Your task to perform on an android device: toggle translation in the chrome app Image 0: 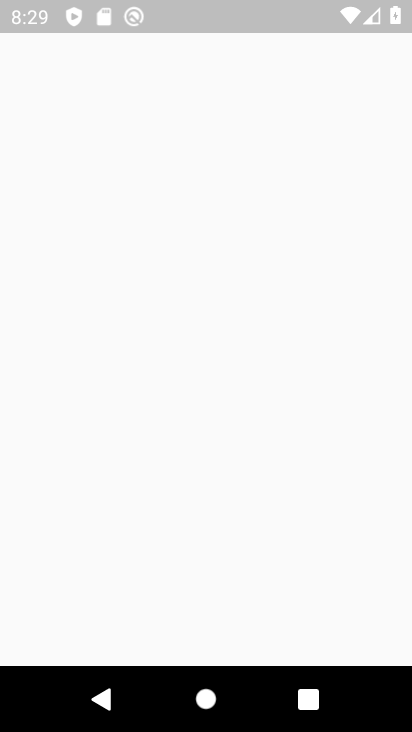
Step 0: press back button
Your task to perform on an android device: toggle translation in the chrome app Image 1: 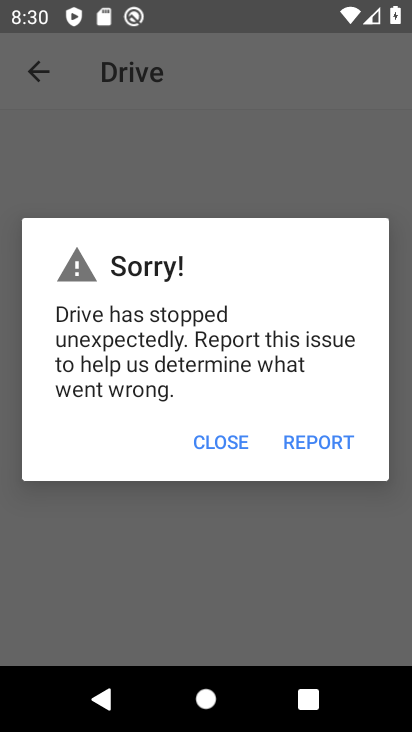
Step 1: press back button
Your task to perform on an android device: toggle translation in the chrome app Image 2: 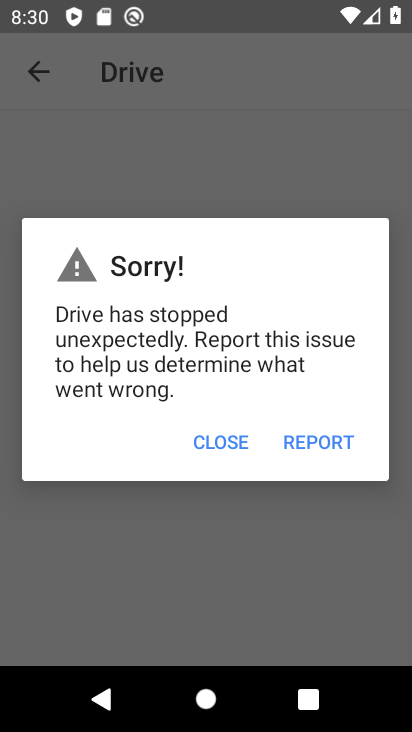
Step 2: press home button
Your task to perform on an android device: toggle translation in the chrome app Image 3: 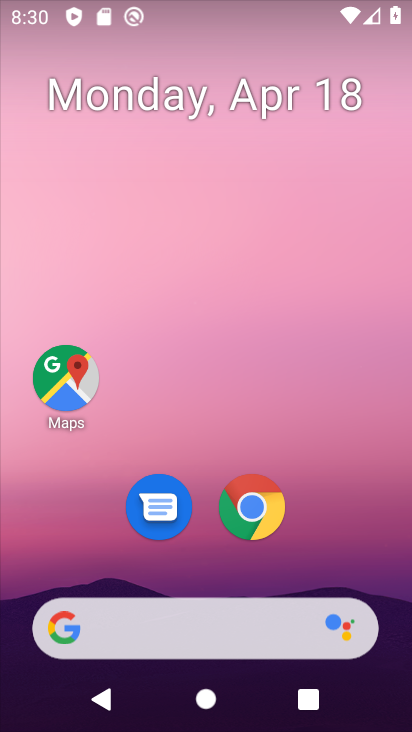
Step 3: click (237, 512)
Your task to perform on an android device: toggle translation in the chrome app Image 4: 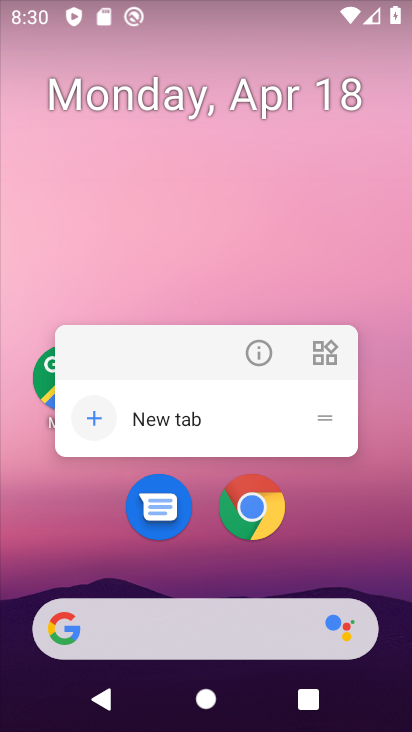
Step 4: drag from (174, 591) to (231, 166)
Your task to perform on an android device: toggle translation in the chrome app Image 5: 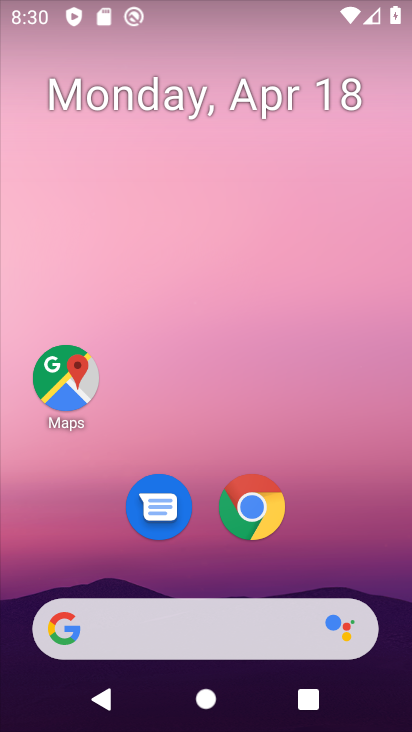
Step 5: drag from (207, 570) to (273, 154)
Your task to perform on an android device: toggle translation in the chrome app Image 6: 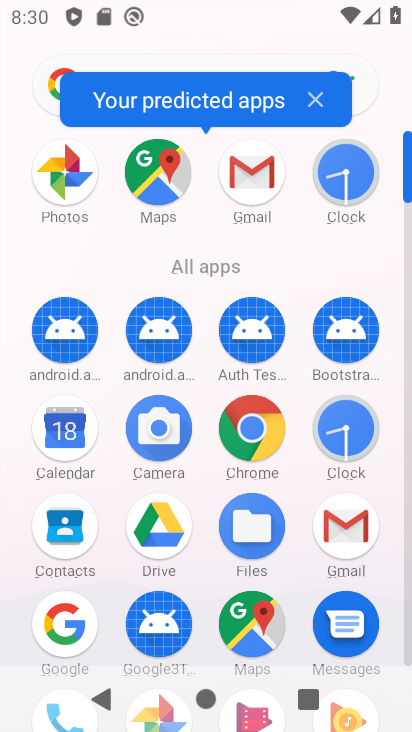
Step 6: click (261, 420)
Your task to perform on an android device: toggle translation in the chrome app Image 7: 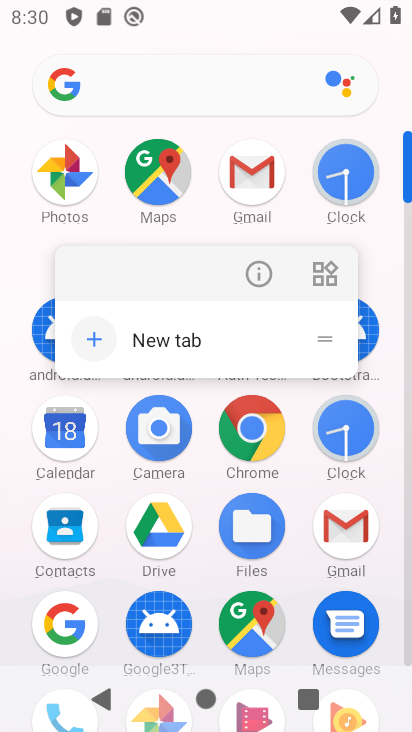
Step 7: click (249, 423)
Your task to perform on an android device: toggle translation in the chrome app Image 8: 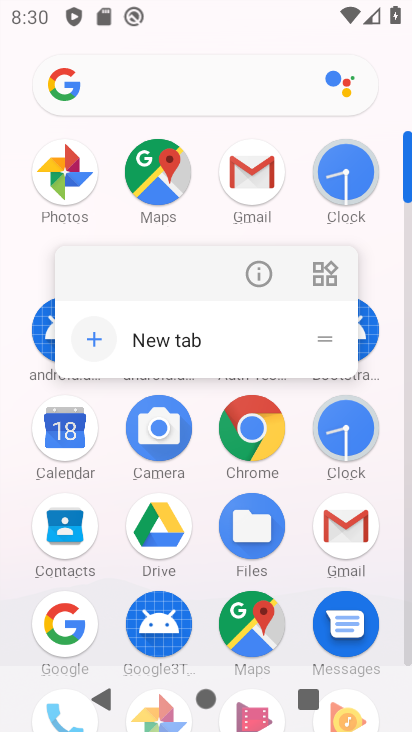
Step 8: click (267, 421)
Your task to perform on an android device: toggle translation in the chrome app Image 9: 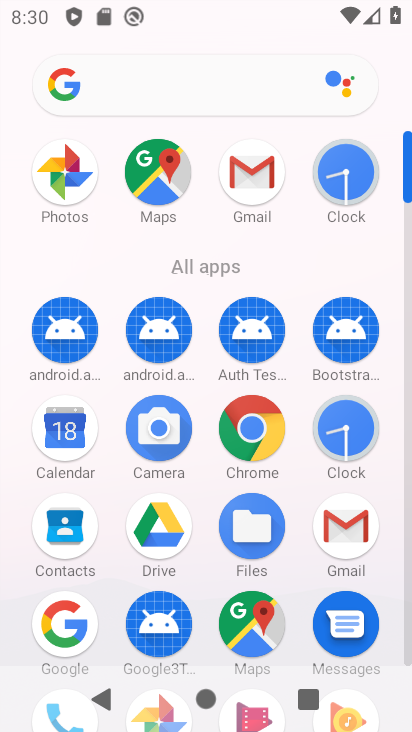
Step 9: click (261, 421)
Your task to perform on an android device: toggle translation in the chrome app Image 10: 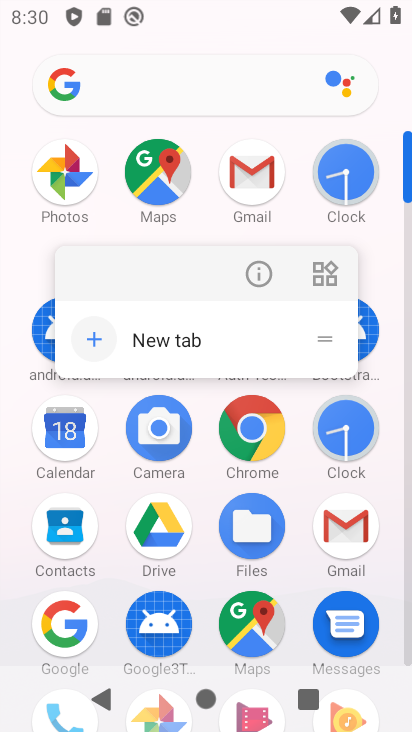
Step 10: click (261, 421)
Your task to perform on an android device: toggle translation in the chrome app Image 11: 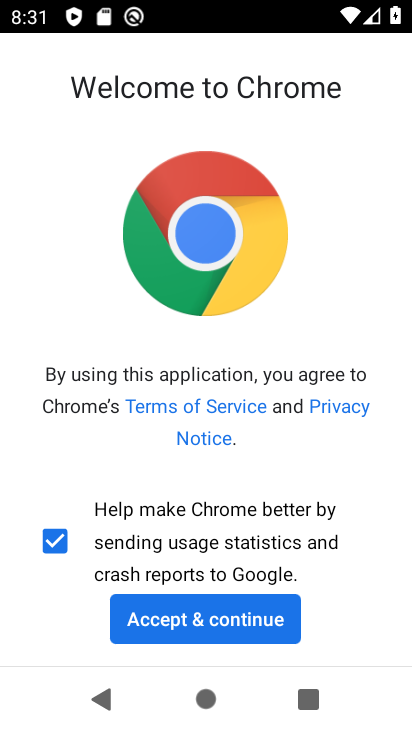
Step 11: click (228, 627)
Your task to perform on an android device: toggle translation in the chrome app Image 12: 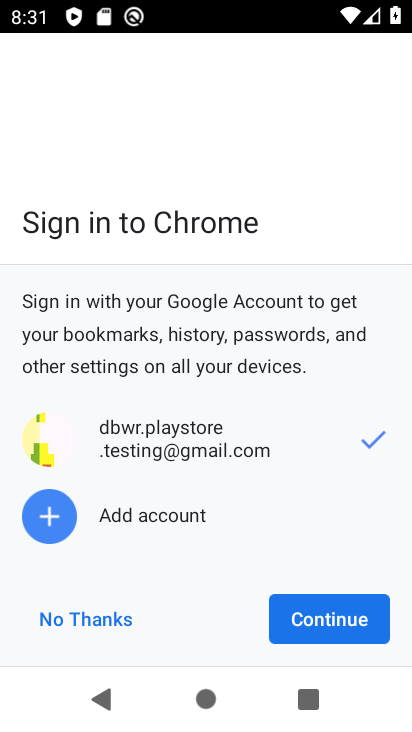
Step 12: click (312, 622)
Your task to perform on an android device: toggle translation in the chrome app Image 13: 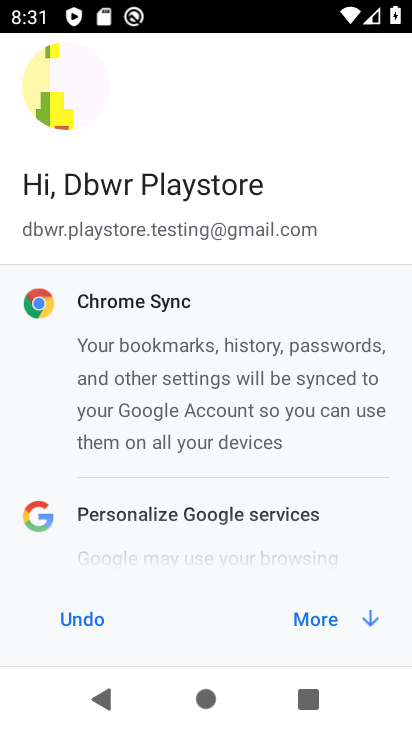
Step 13: click (336, 616)
Your task to perform on an android device: toggle translation in the chrome app Image 14: 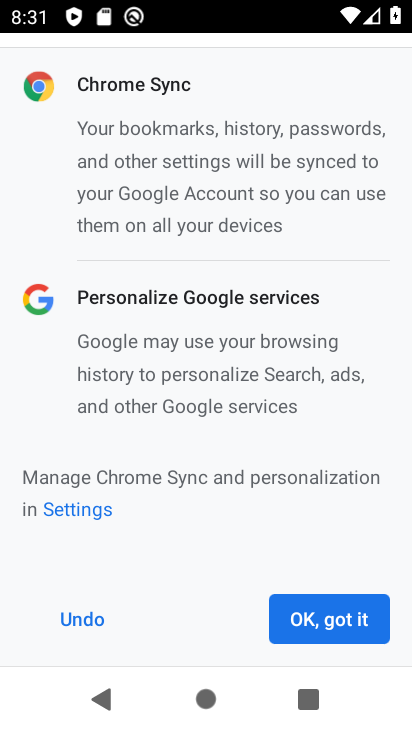
Step 14: click (336, 616)
Your task to perform on an android device: toggle translation in the chrome app Image 15: 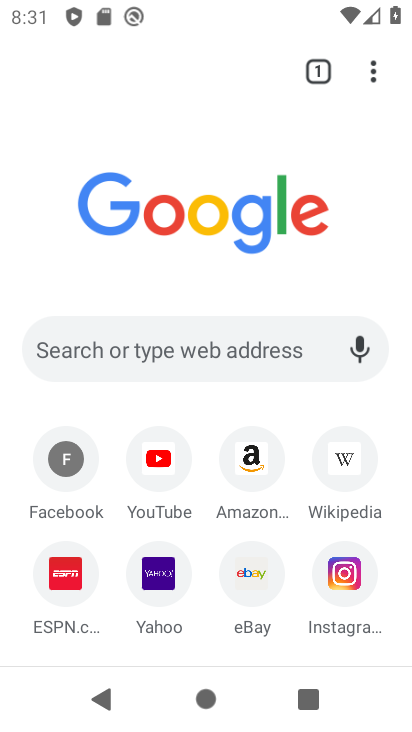
Step 15: click (371, 80)
Your task to perform on an android device: toggle translation in the chrome app Image 16: 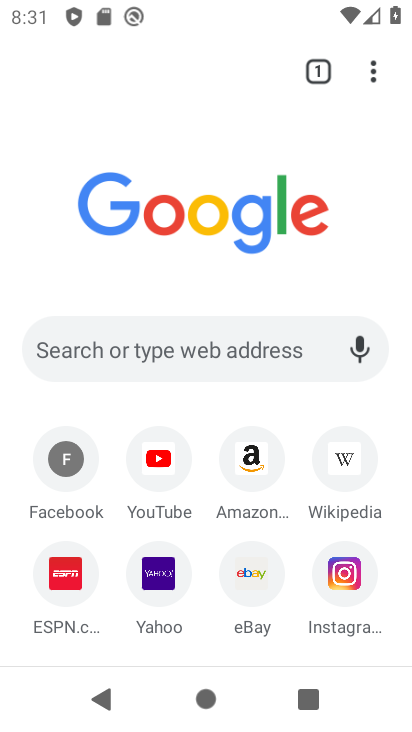
Step 16: click (378, 75)
Your task to perform on an android device: toggle translation in the chrome app Image 17: 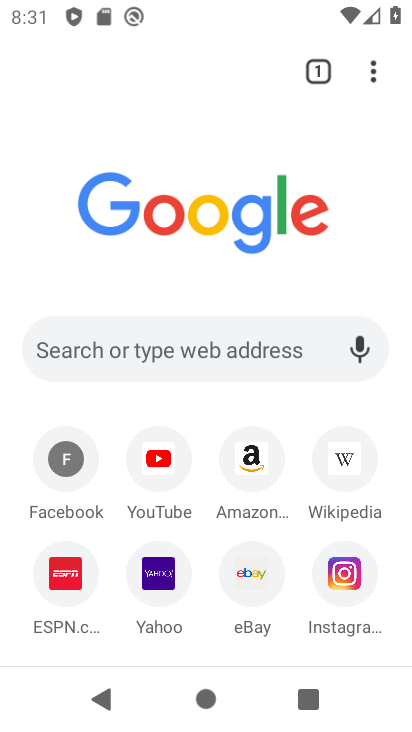
Step 17: click (370, 72)
Your task to perform on an android device: toggle translation in the chrome app Image 18: 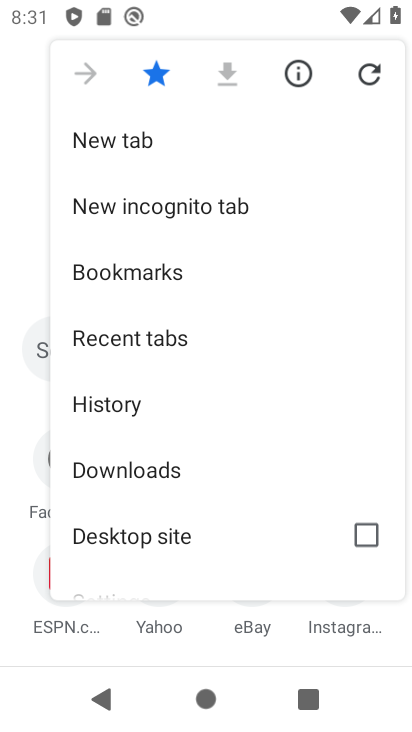
Step 18: drag from (203, 490) to (261, 231)
Your task to perform on an android device: toggle translation in the chrome app Image 19: 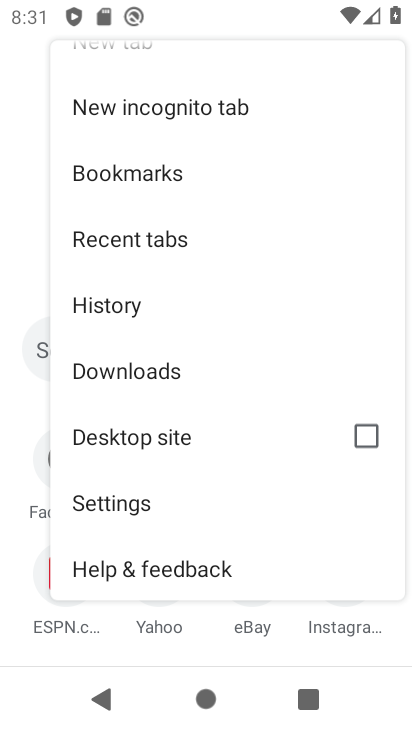
Step 19: click (126, 497)
Your task to perform on an android device: toggle translation in the chrome app Image 20: 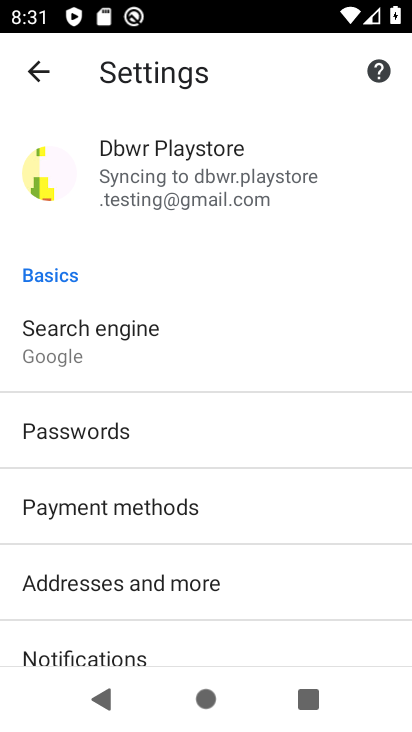
Step 20: drag from (168, 461) to (201, 325)
Your task to perform on an android device: toggle translation in the chrome app Image 21: 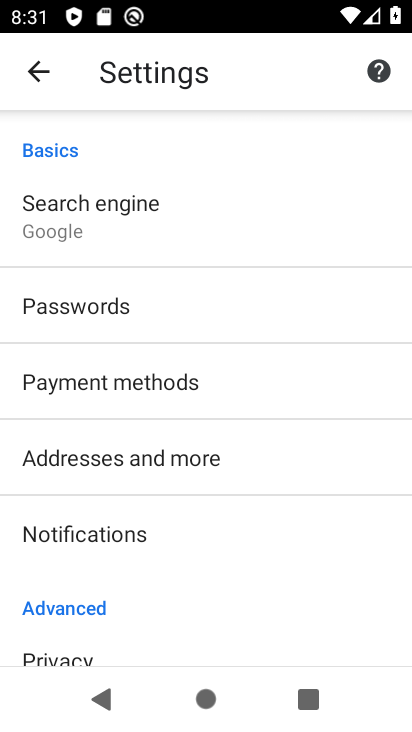
Step 21: drag from (99, 607) to (205, 333)
Your task to perform on an android device: toggle translation in the chrome app Image 22: 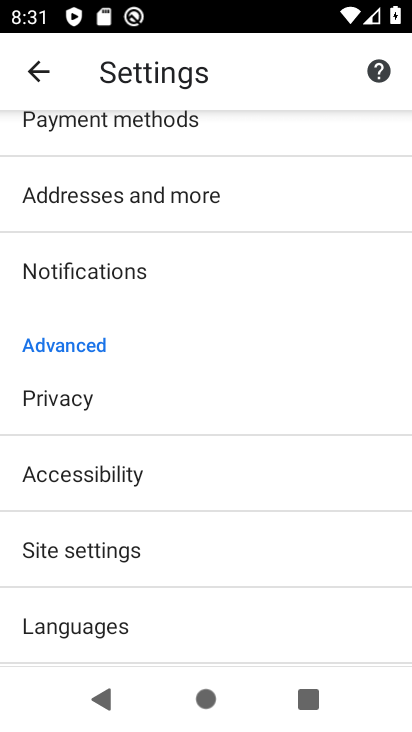
Step 22: drag from (160, 522) to (182, 380)
Your task to perform on an android device: toggle translation in the chrome app Image 23: 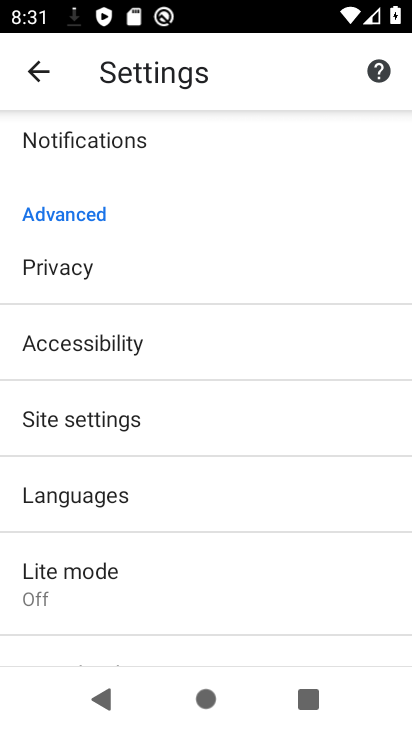
Step 23: click (73, 490)
Your task to perform on an android device: toggle translation in the chrome app Image 24: 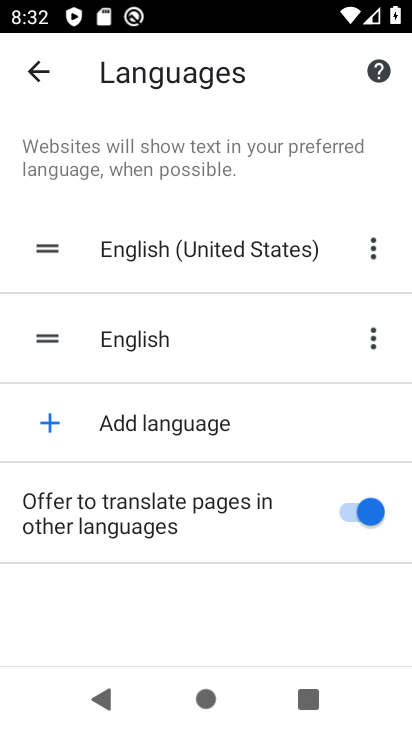
Step 24: click (350, 513)
Your task to perform on an android device: toggle translation in the chrome app Image 25: 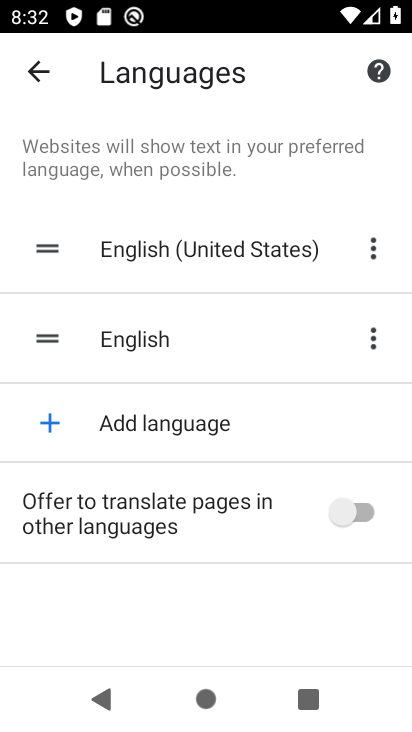
Step 25: click (234, 521)
Your task to perform on an android device: toggle translation in the chrome app Image 26: 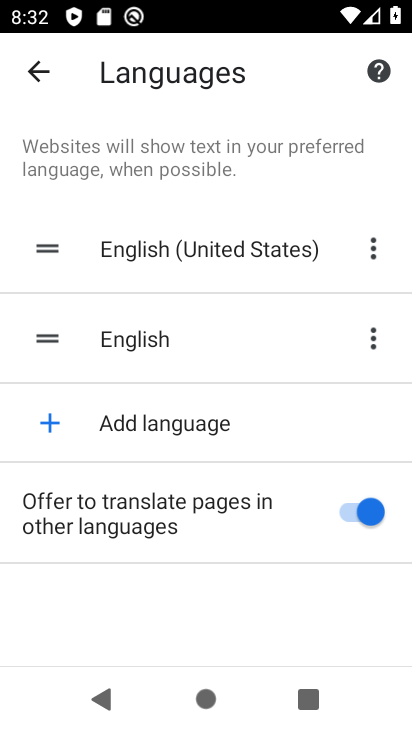
Step 26: click (352, 508)
Your task to perform on an android device: toggle translation in the chrome app Image 27: 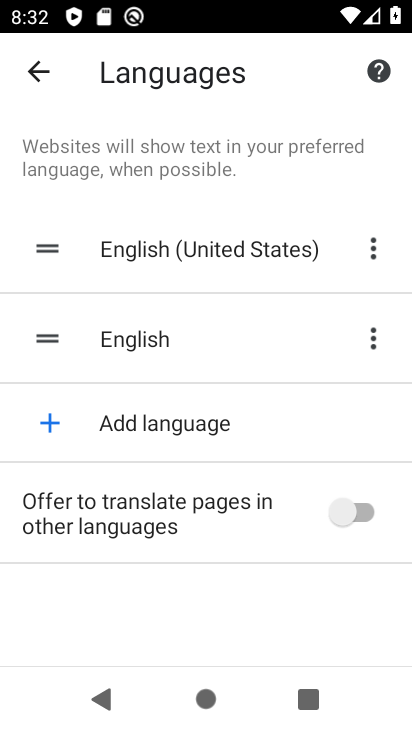
Step 27: task complete